Your task to perform on an android device: Is it going to rain this weekend? Image 0: 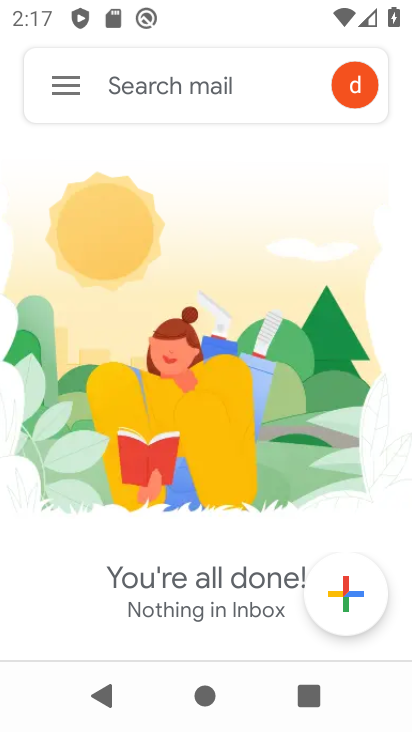
Step 0: press home button
Your task to perform on an android device: Is it going to rain this weekend? Image 1: 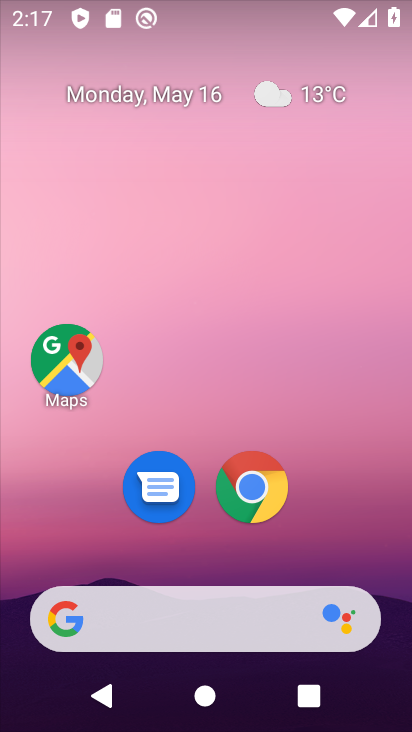
Step 1: click (272, 502)
Your task to perform on an android device: Is it going to rain this weekend? Image 2: 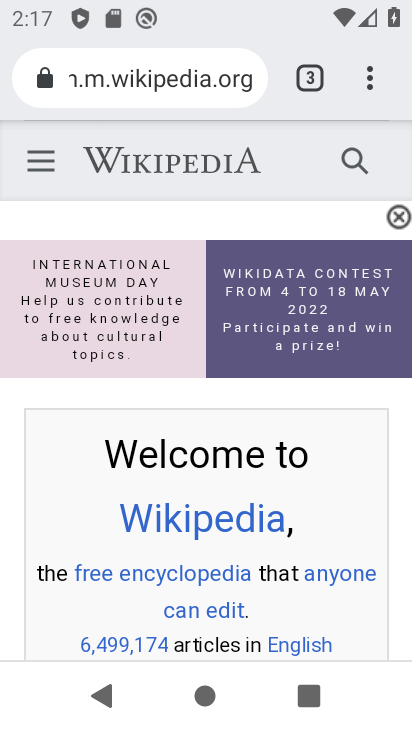
Step 2: click (318, 81)
Your task to perform on an android device: Is it going to rain this weekend? Image 3: 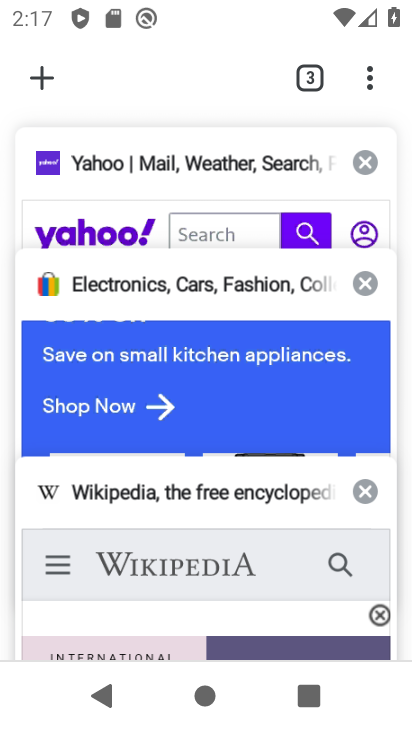
Step 3: click (43, 59)
Your task to perform on an android device: Is it going to rain this weekend? Image 4: 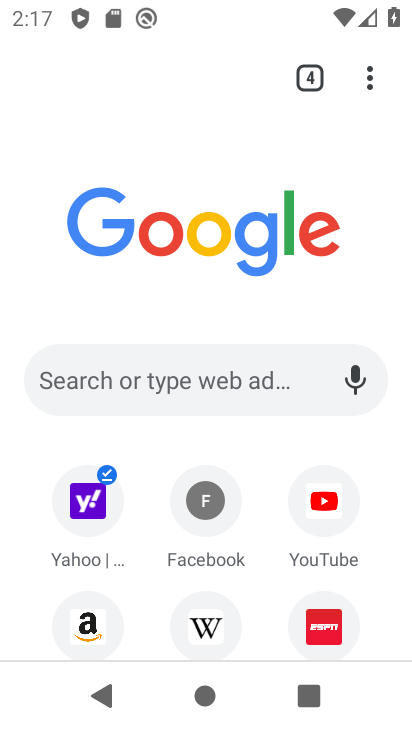
Step 4: click (155, 374)
Your task to perform on an android device: Is it going to rain this weekend? Image 5: 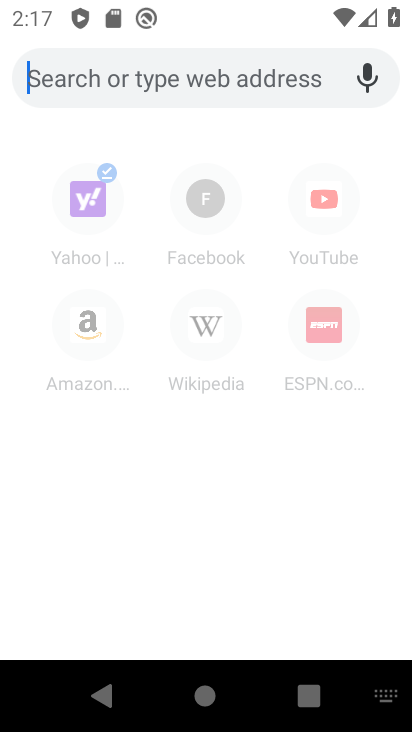
Step 5: type "is it going to rain this weekend?"
Your task to perform on an android device: Is it going to rain this weekend? Image 6: 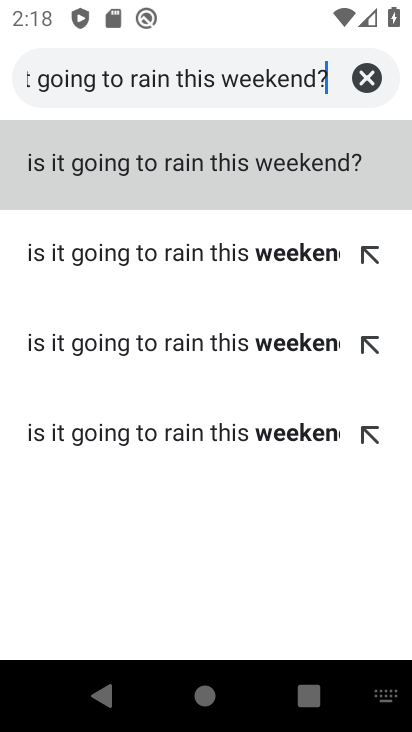
Step 6: click (191, 169)
Your task to perform on an android device: Is it going to rain this weekend? Image 7: 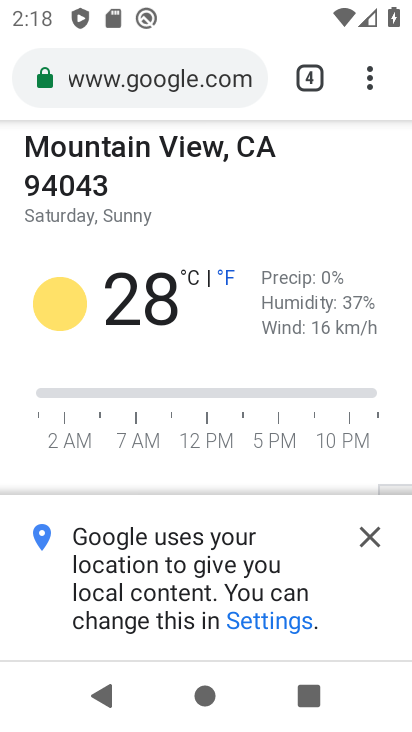
Step 7: click (365, 531)
Your task to perform on an android device: Is it going to rain this weekend? Image 8: 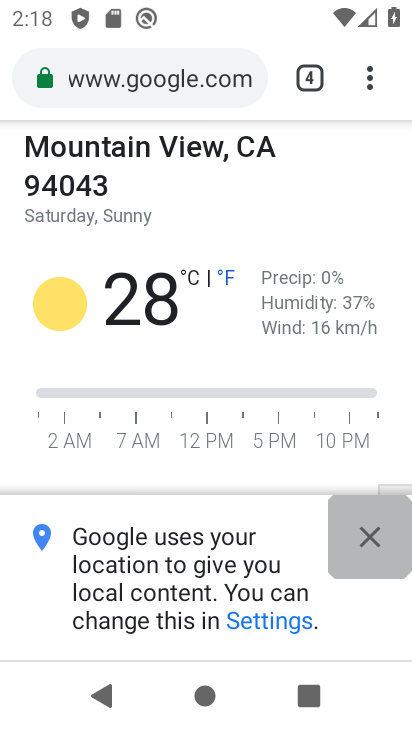
Step 8: click (365, 531)
Your task to perform on an android device: Is it going to rain this weekend? Image 9: 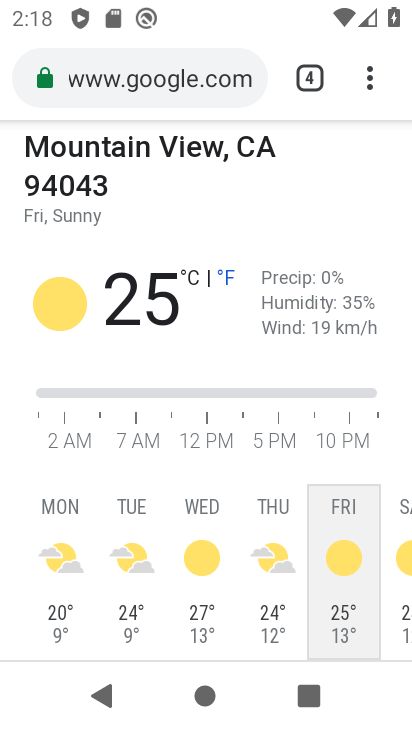
Step 9: drag from (344, 576) to (347, 370)
Your task to perform on an android device: Is it going to rain this weekend? Image 10: 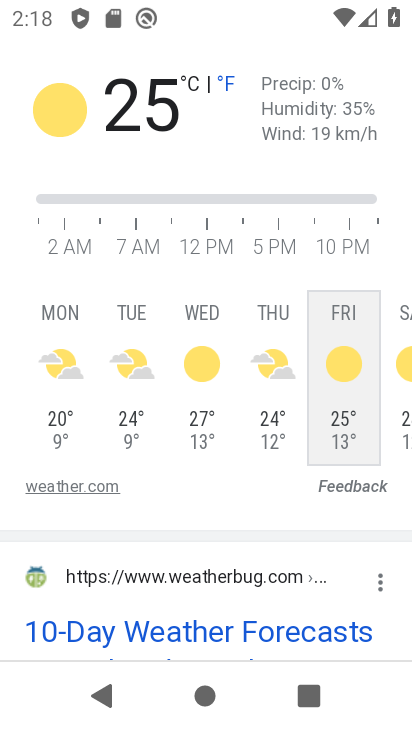
Step 10: drag from (347, 367) to (174, 350)
Your task to perform on an android device: Is it going to rain this weekend? Image 11: 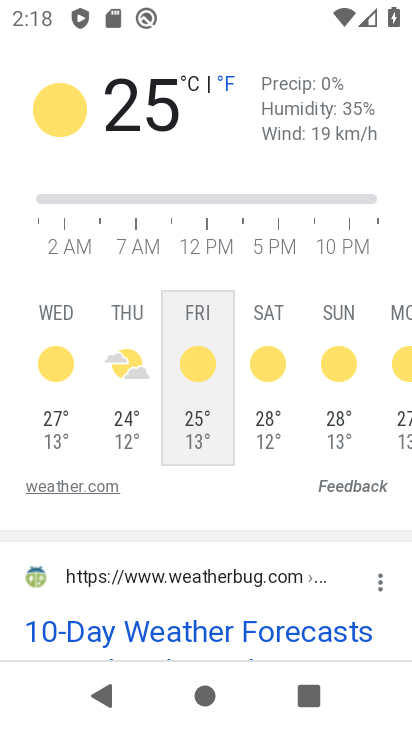
Step 11: click (174, 350)
Your task to perform on an android device: Is it going to rain this weekend? Image 12: 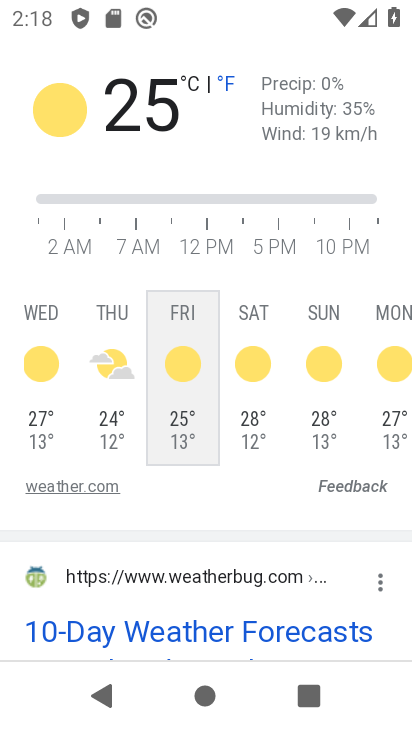
Step 12: click (179, 349)
Your task to perform on an android device: Is it going to rain this weekend? Image 13: 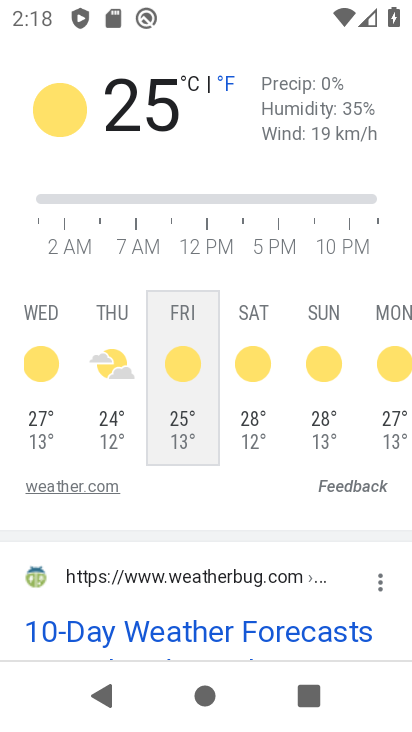
Step 13: drag from (182, 244) to (211, 404)
Your task to perform on an android device: Is it going to rain this weekend? Image 14: 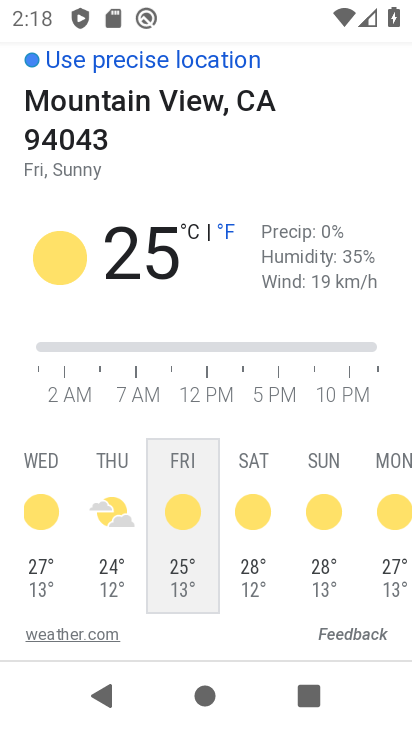
Step 14: click (114, 522)
Your task to perform on an android device: Is it going to rain this weekend? Image 15: 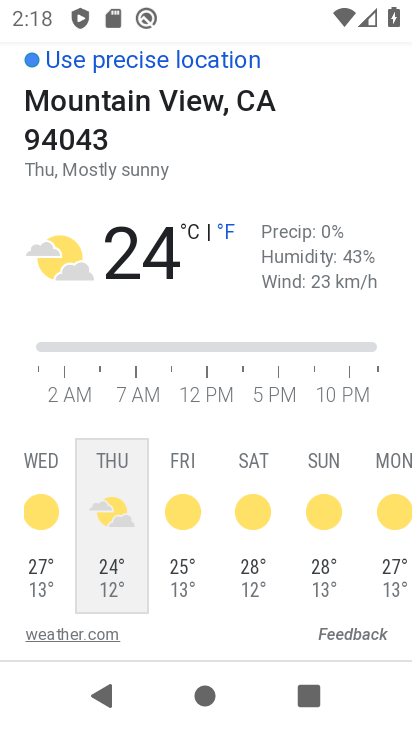
Step 15: click (183, 511)
Your task to perform on an android device: Is it going to rain this weekend? Image 16: 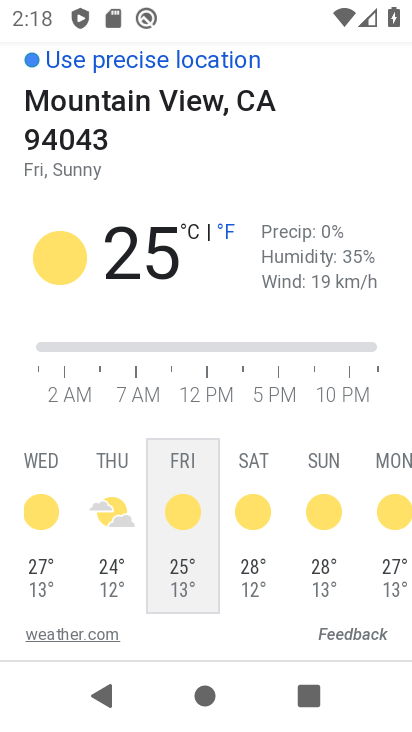
Step 16: task complete